Your task to perform on an android device: Search for razer blade on target.com, select the first entry, add it to the cart, then select checkout. Image 0: 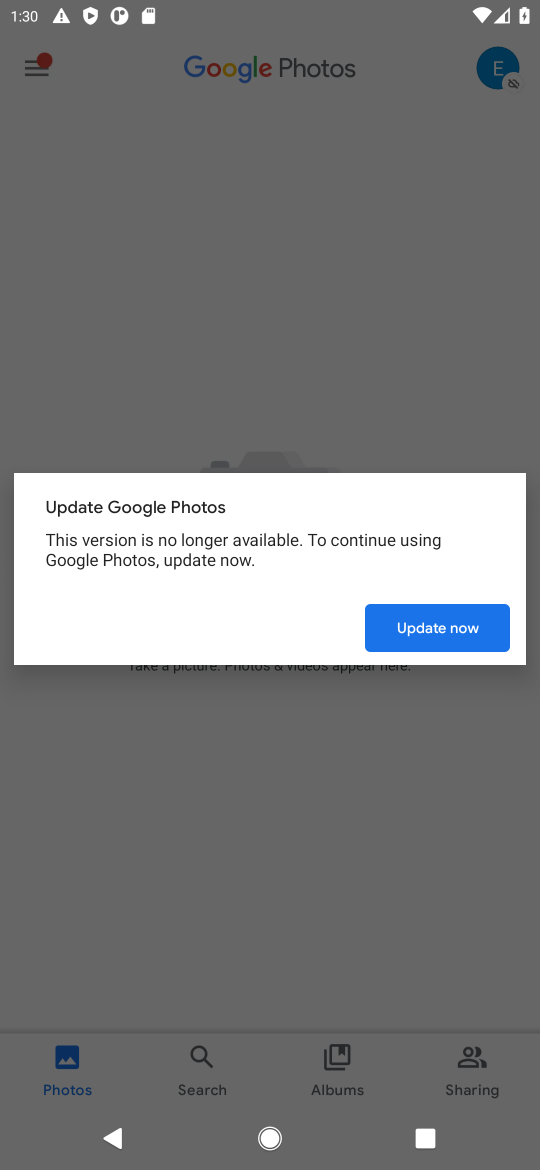
Step 0: press home button
Your task to perform on an android device: Search for razer blade on target.com, select the first entry, add it to the cart, then select checkout. Image 1: 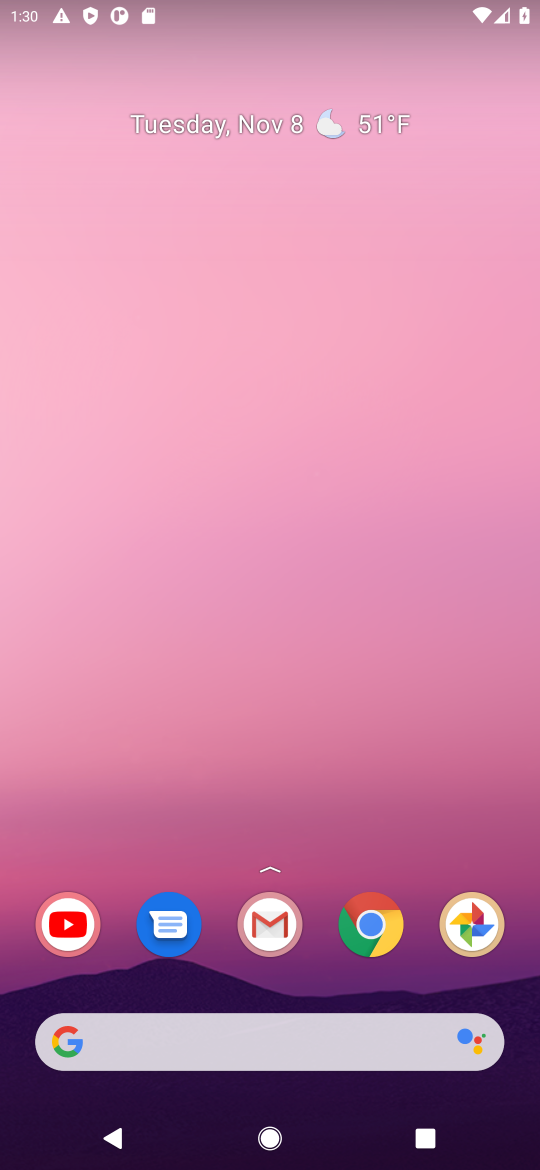
Step 1: click (388, 907)
Your task to perform on an android device: Search for razer blade on target.com, select the first entry, add it to the cart, then select checkout. Image 2: 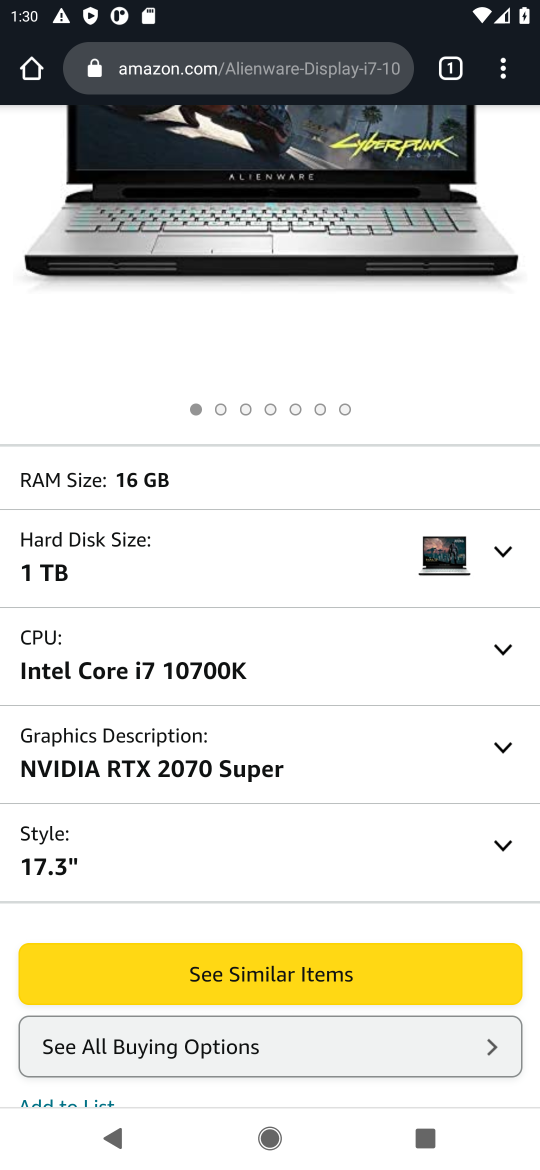
Step 2: click (197, 74)
Your task to perform on an android device: Search for razer blade on target.com, select the first entry, add it to the cart, then select checkout. Image 3: 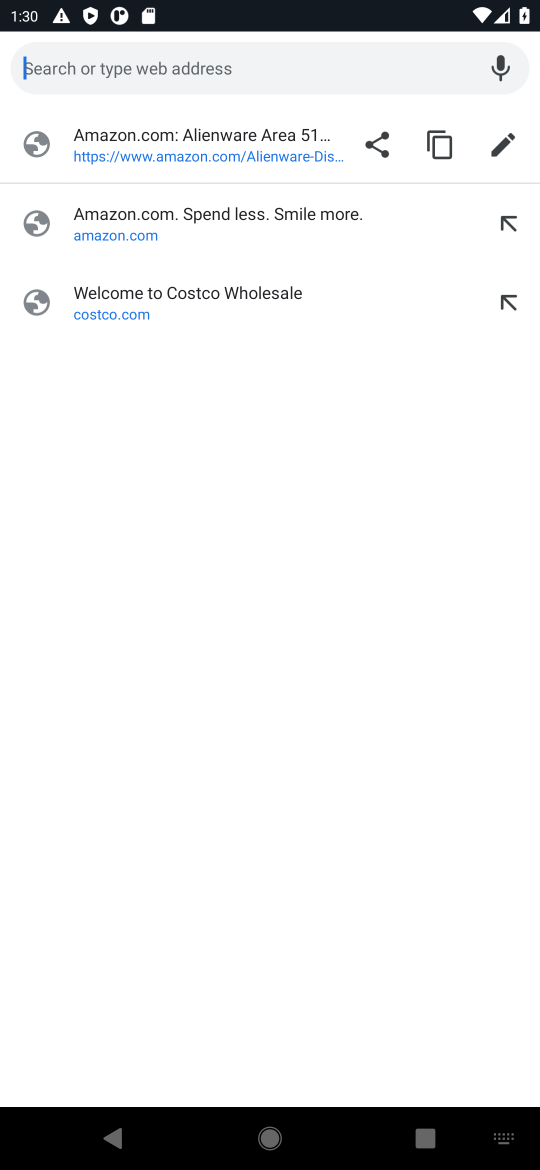
Step 3: type "target.com"
Your task to perform on an android device: Search for razer blade on target.com, select the first entry, add it to the cart, then select checkout. Image 4: 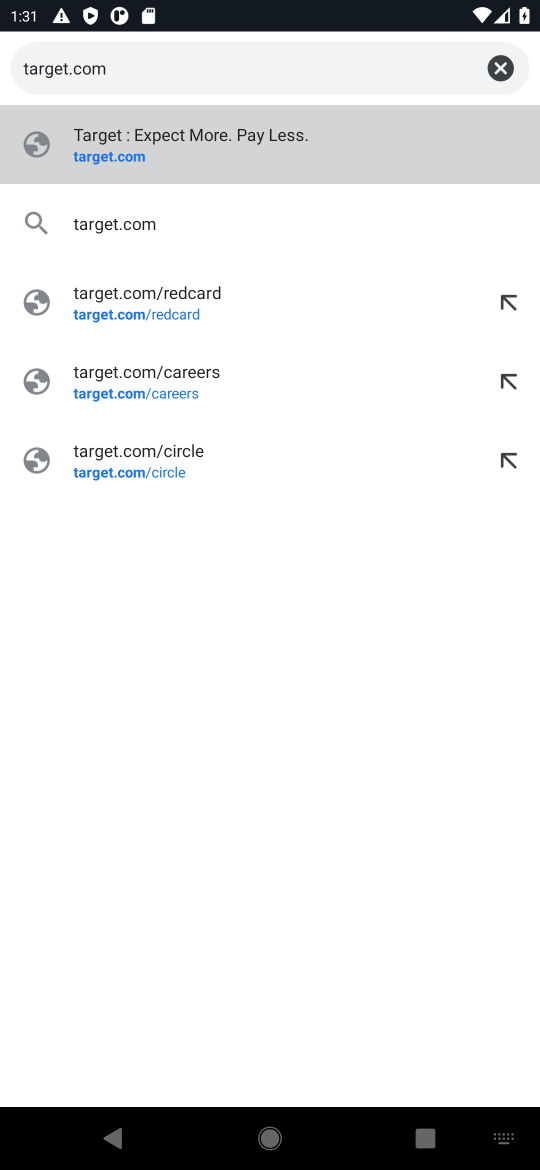
Step 4: click (198, 156)
Your task to perform on an android device: Search for razer blade on target.com, select the first entry, add it to the cart, then select checkout. Image 5: 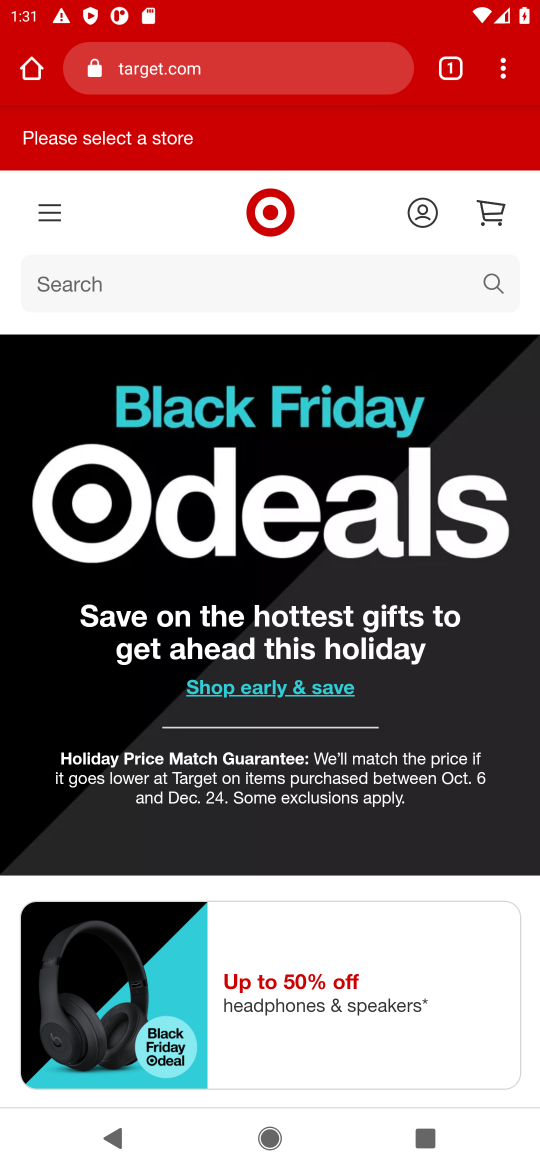
Step 5: click (92, 287)
Your task to perform on an android device: Search for razer blade on target.com, select the first entry, add it to the cart, then select checkout. Image 6: 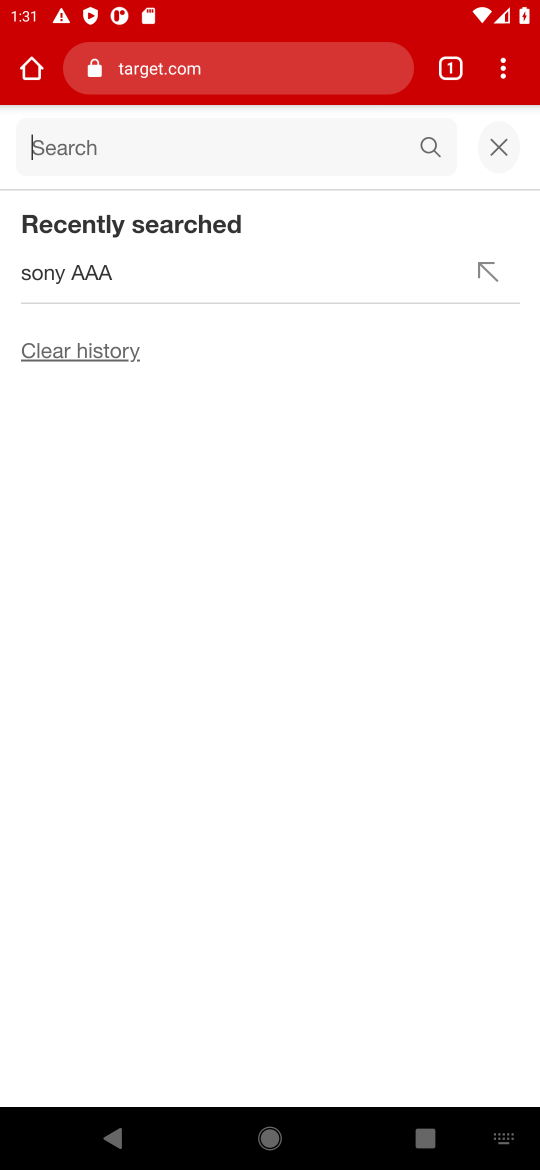
Step 6: type "razer blade"
Your task to perform on an android device: Search for razer blade on target.com, select the first entry, add it to the cart, then select checkout. Image 7: 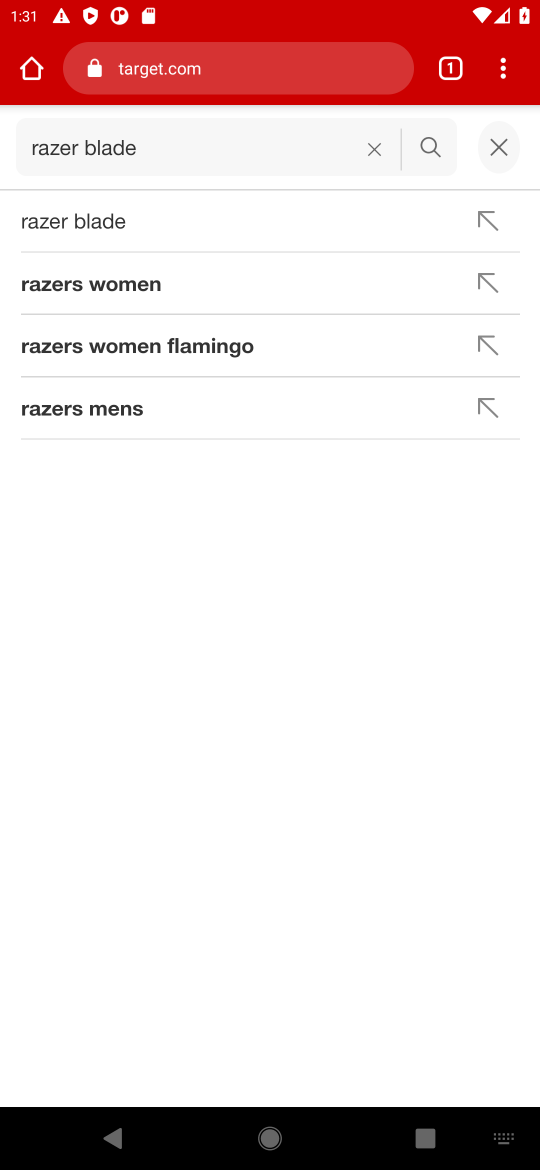
Step 7: click (436, 141)
Your task to perform on an android device: Search for razer blade on target.com, select the first entry, add it to the cart, then select checkout. Image 8: 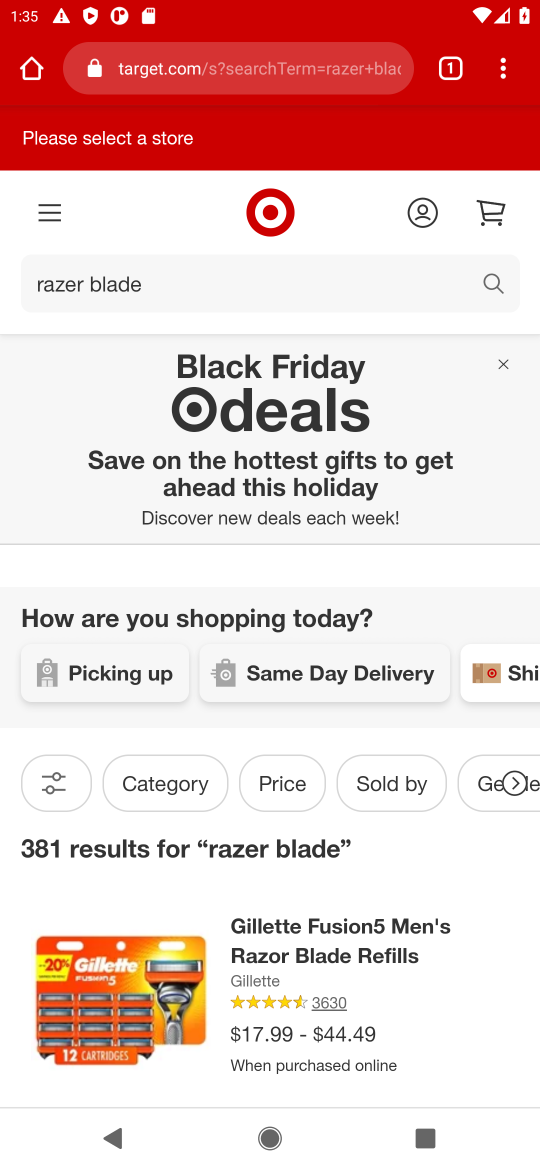
Step 8: task complete